Your task to perform on an android device: Open eBay Image 0: 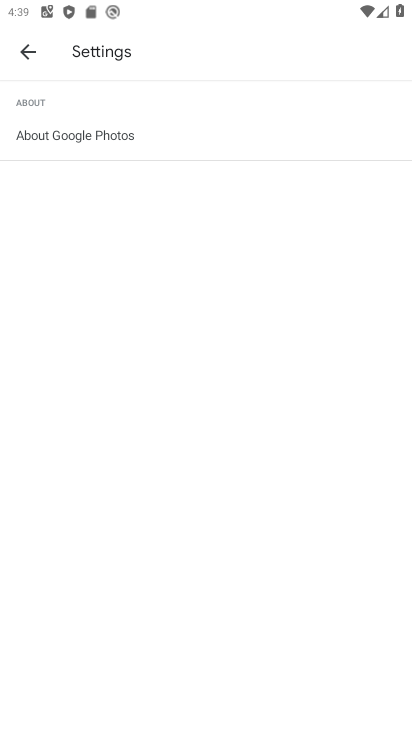
Step 0: press back button
Your task to perform on an android device: Open eBay Image 1: 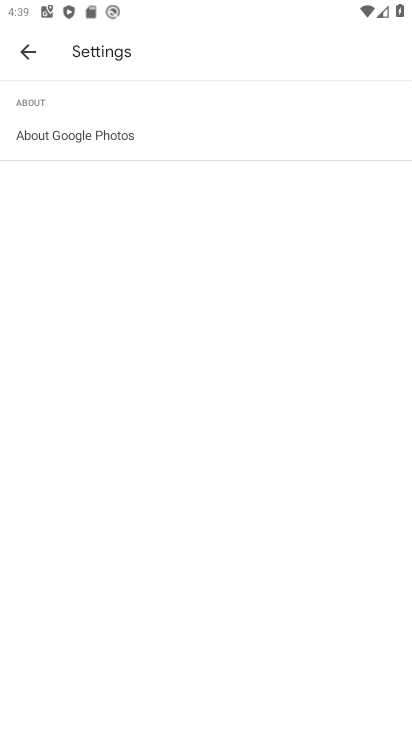
Step 1: press back button
Your task to perform on an android device: Open eBay Image 2: 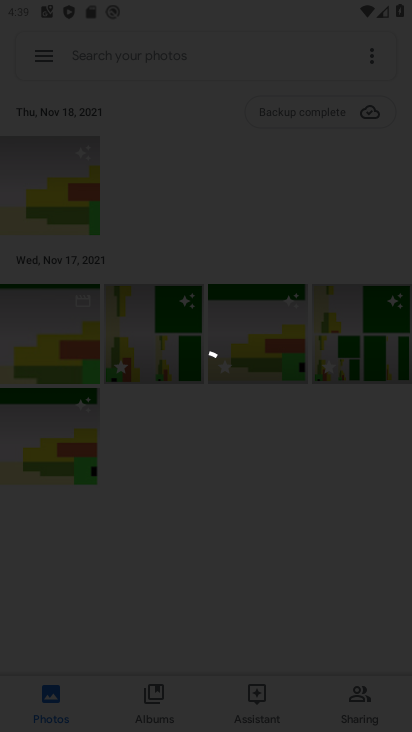
Step 2: press home button
Your task to perform on an android device: Open eBay Image 3: 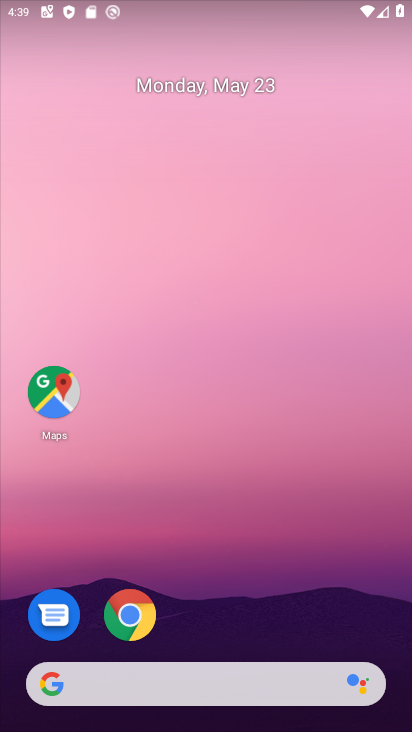
Step 3: click (131, 608)
Your task to perform on an android device: Open eBay Image 4: 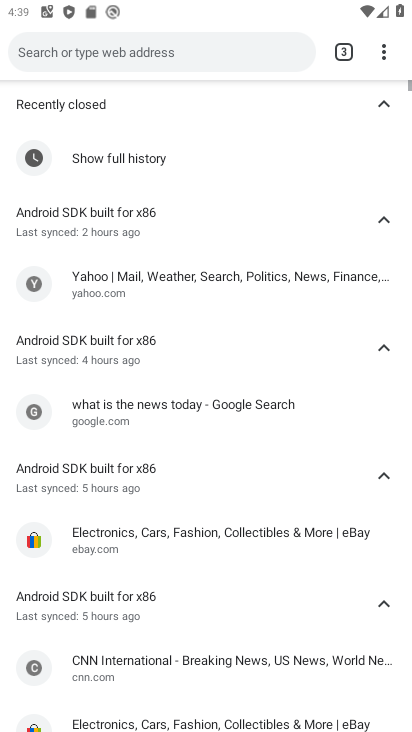
Step 4: click (337, 46)
Your task to perform on an android device: Open eBay Image 5: 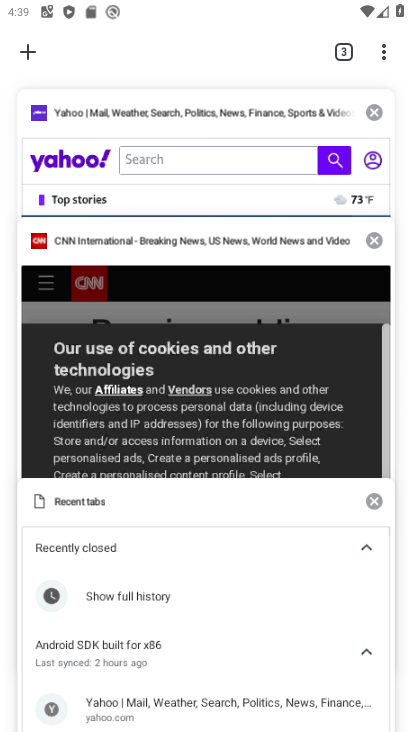
Step 5: click (31, 43)
Your task to perform on an android device: Open eBay Image 6: 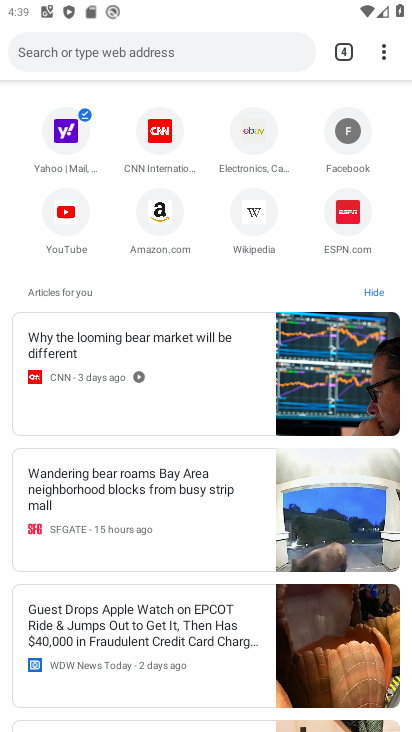
Step 6: click (258, 138)
Your task to perform on an android device: Open eBay Image 7: 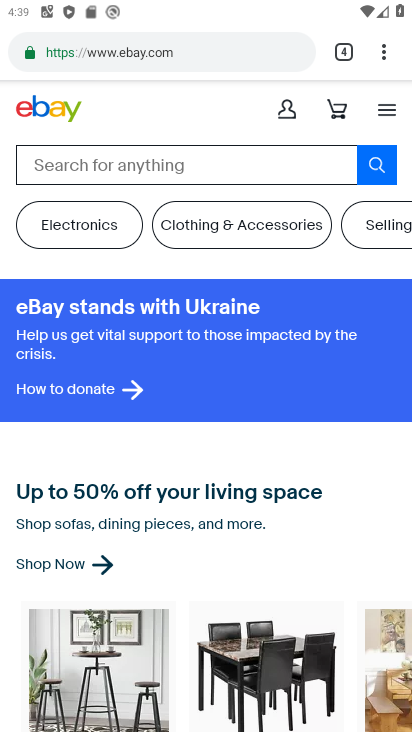
Step 7: task complete